Your task to perform on an android device: Go to internet settings Image 0: 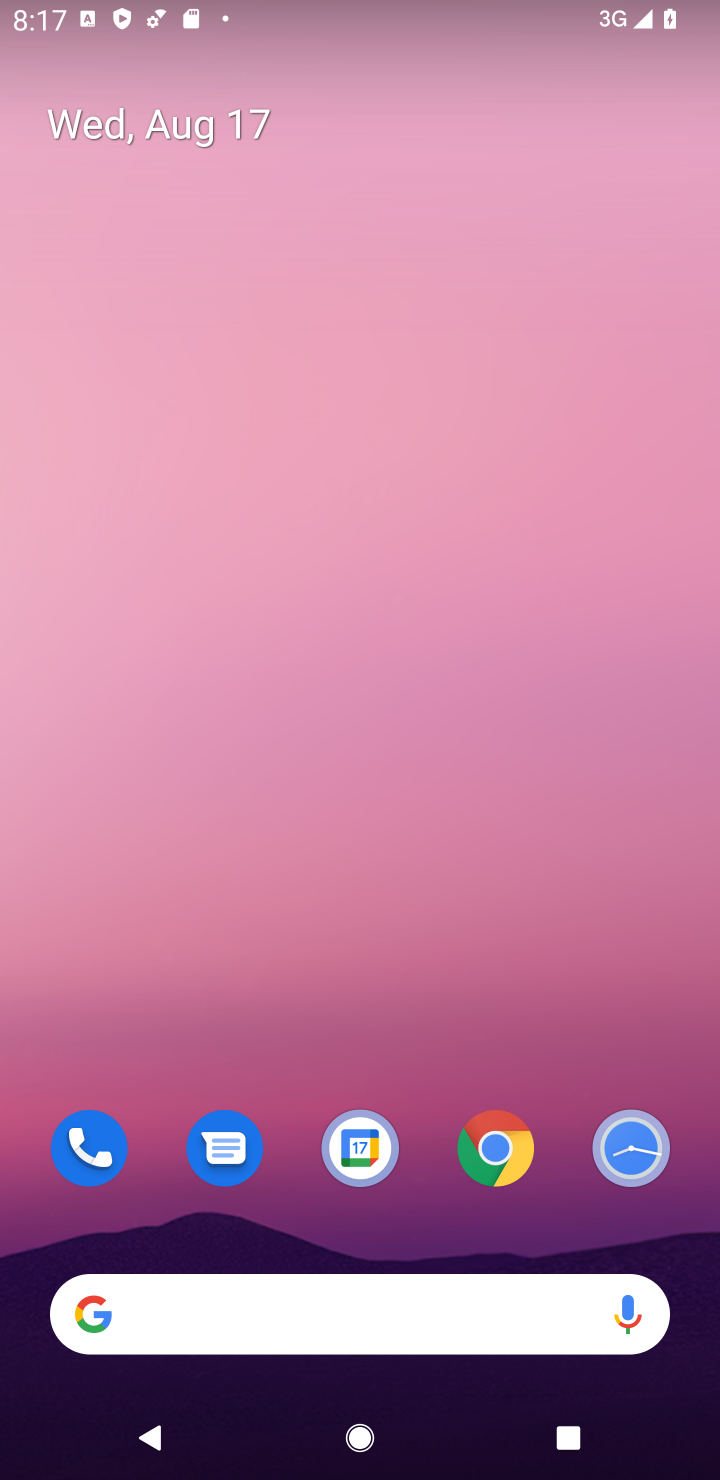
Step 0: drag from (558, 852) to (531, 94)
Your task to perform on an android device: Go to internet settings Image 1: 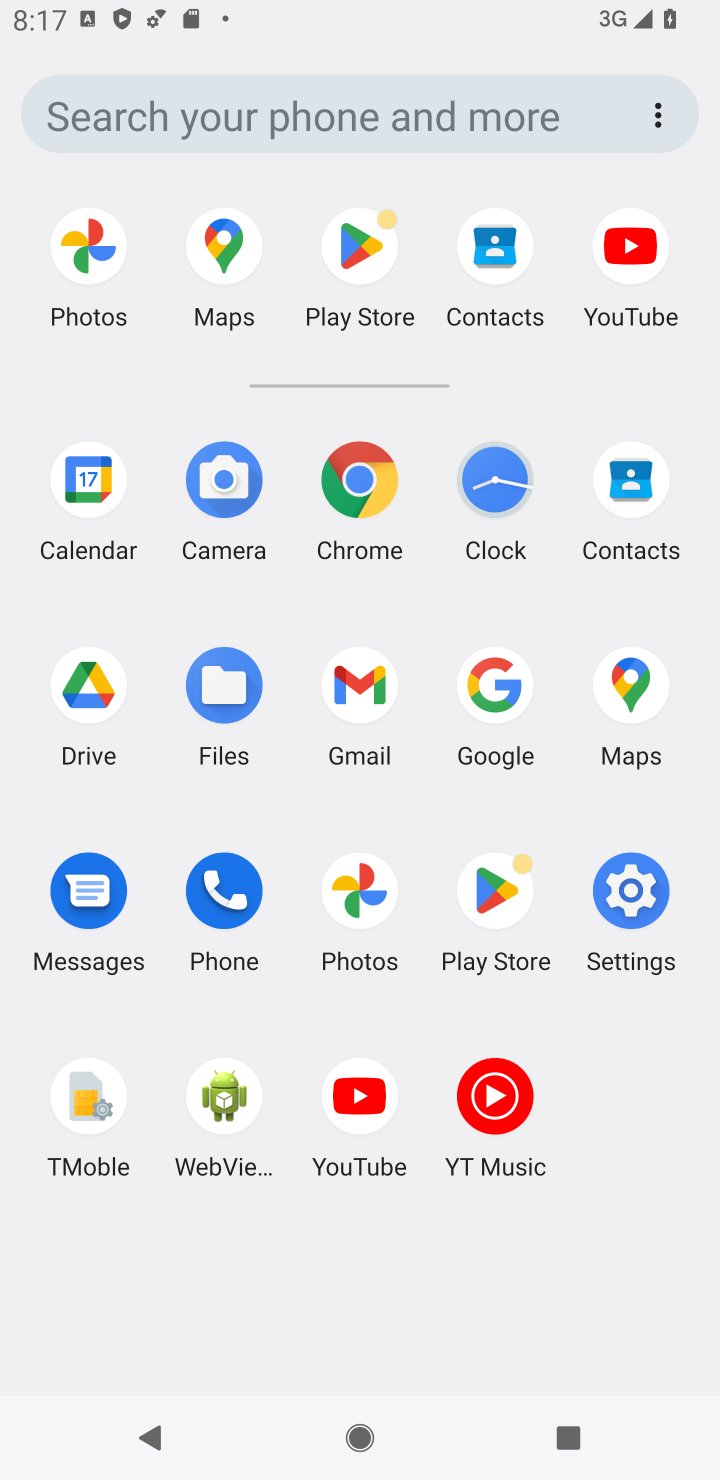
Step 1: click (633, 893)
Your task to perform on an android device: Go to internet settings Image 2: 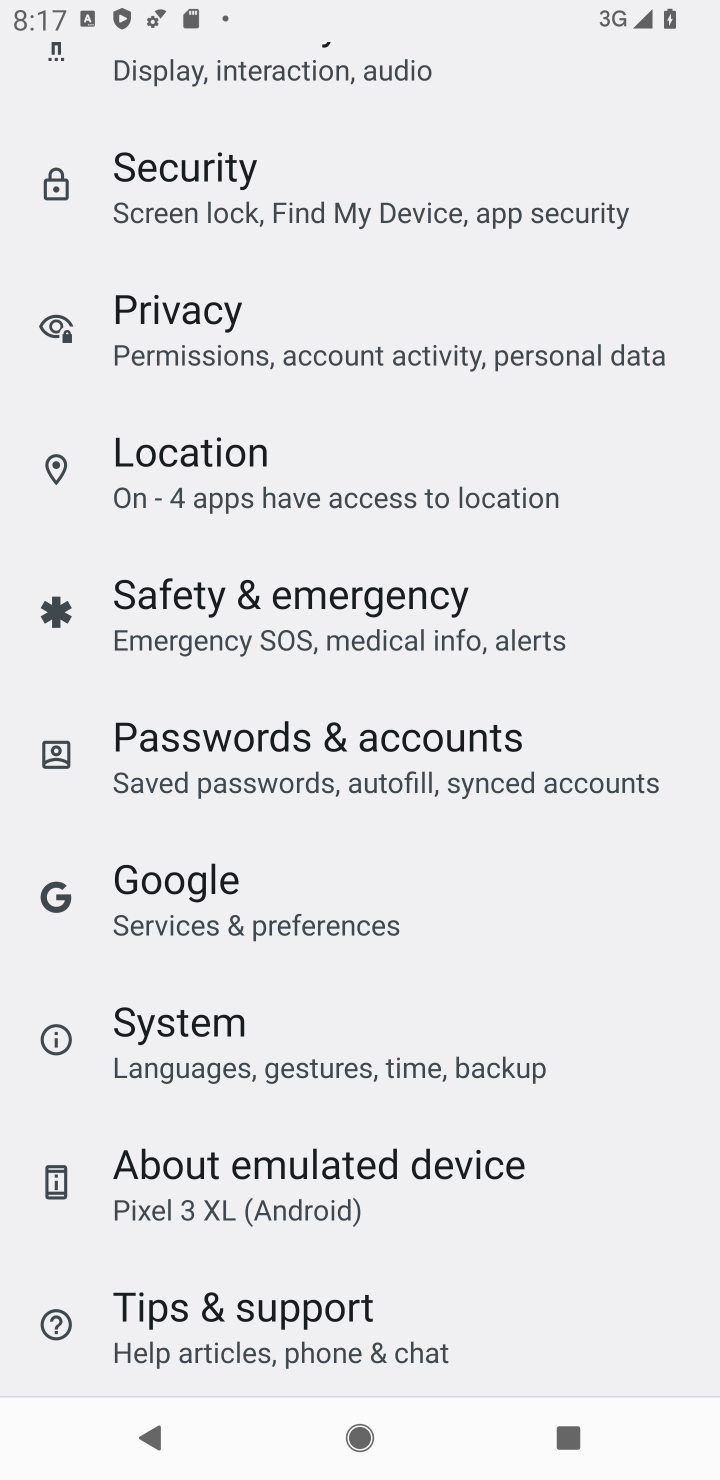
Step 2: drag from (672, 317) to (688, 915)
Your task to perform on an android device: Go to internet settings Image 3: 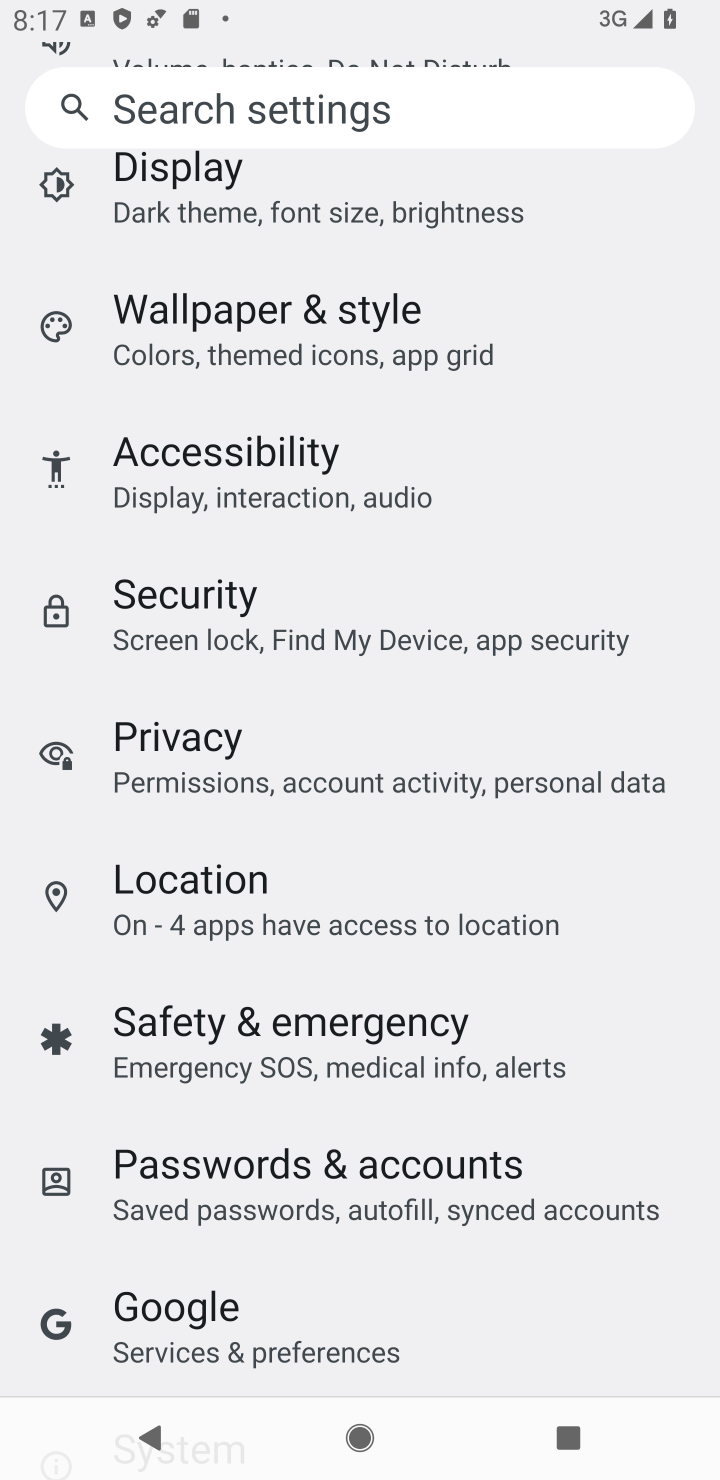
Step 3: drag from (646, 267) to (656, 889)
Your task to perform on an android device: Go to internet settings Image 4: 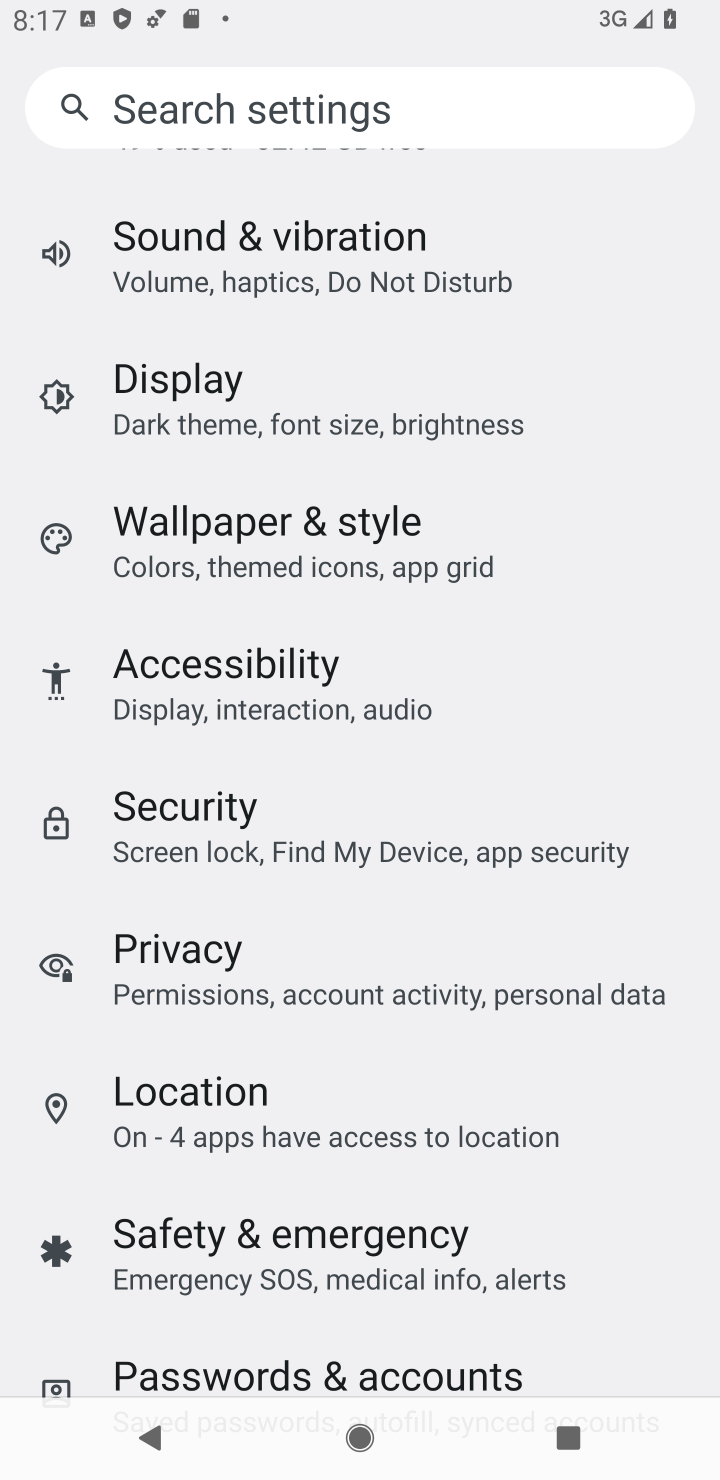
Step 4: drag from (626, 393) to (629, 1053)
Your task to perform on an android device: Go to internet settings Image 5: 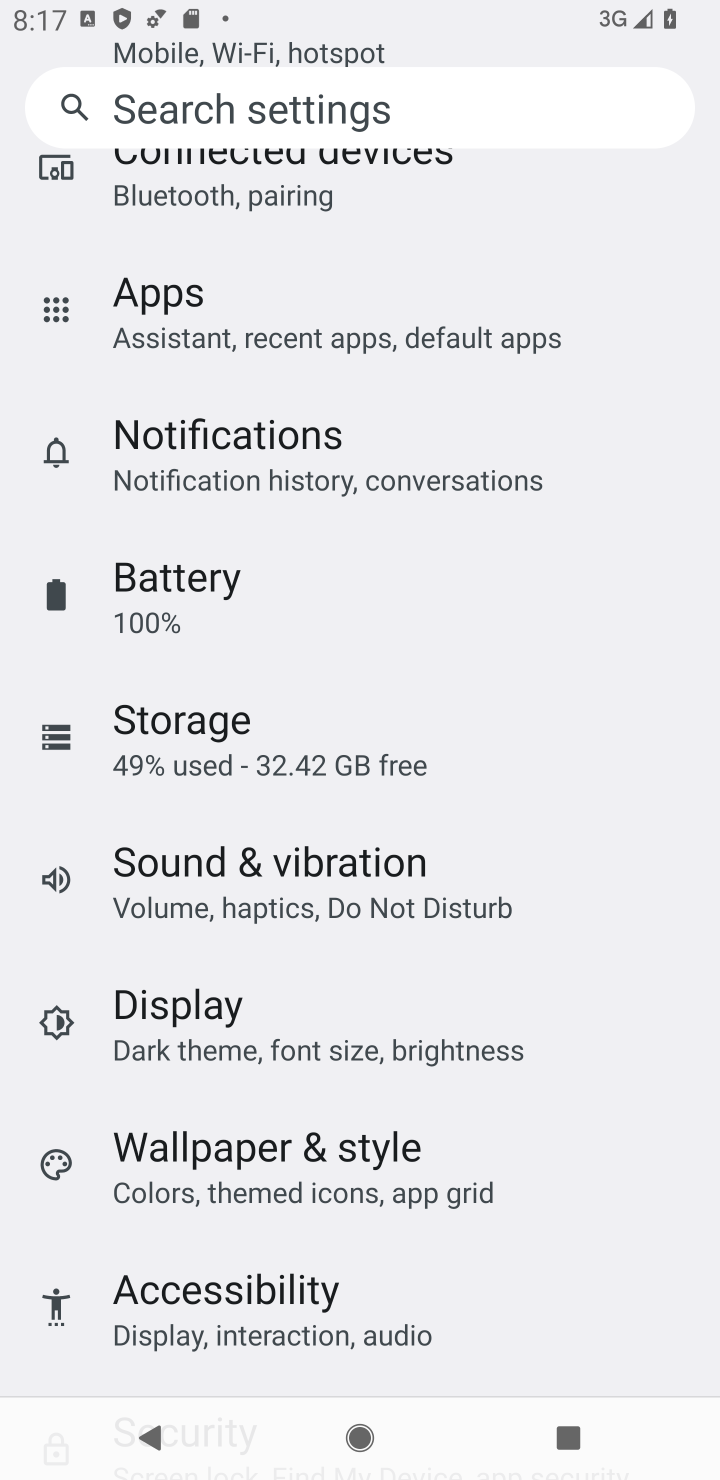
Step 5: drag from (636, 316) to (637, 986)
Your task to perform on an android device: Go to internet settings Image 6: 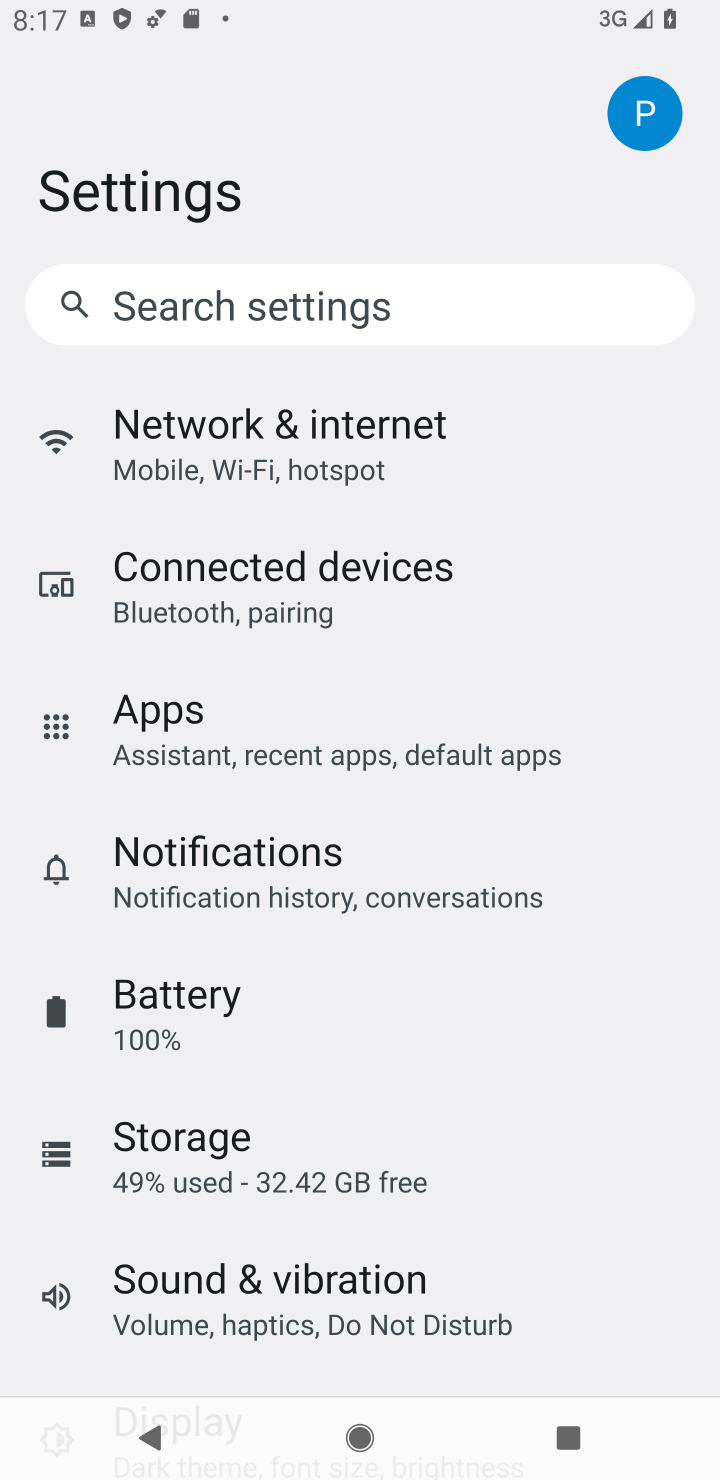
Step 6: click (215, 420)
Your task to perform on an android device: Go to internet settings Image 7: 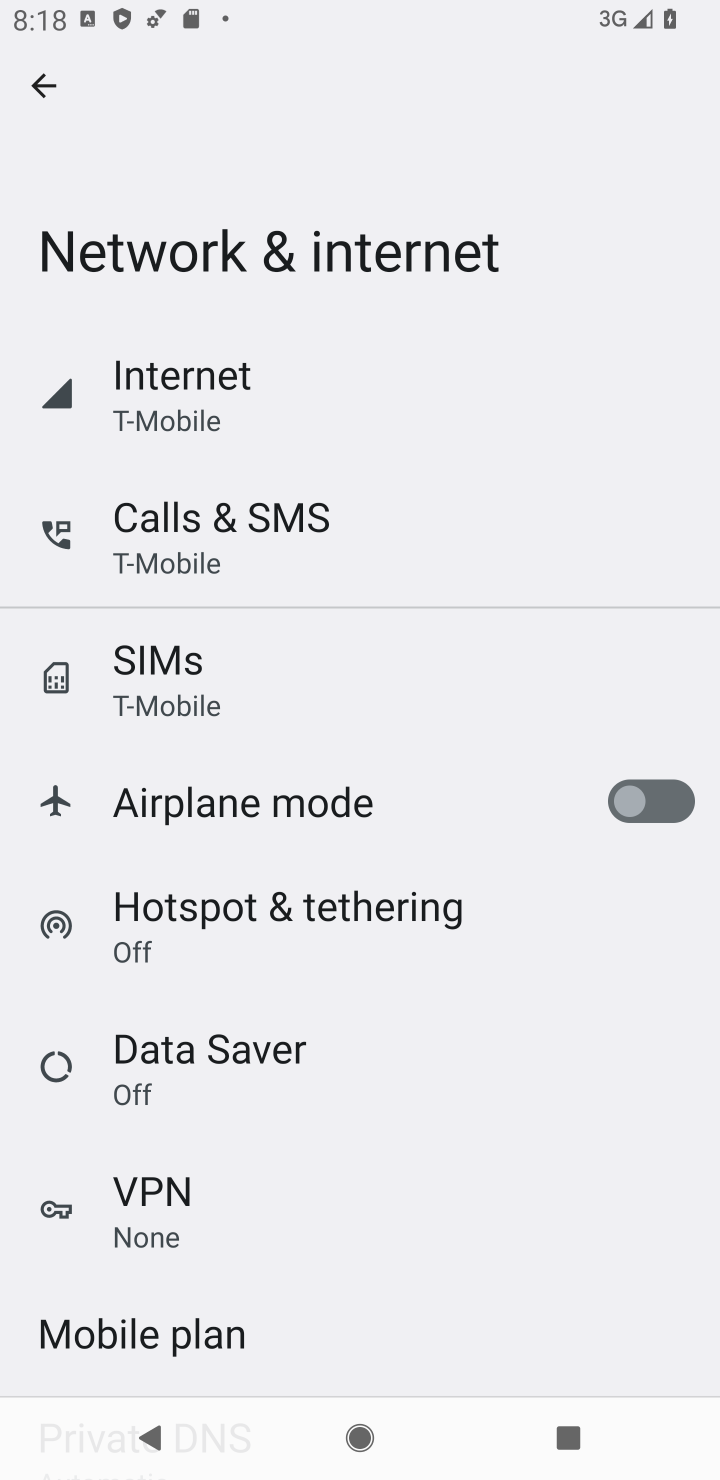
Step 7: click (180, 387)
Your task to perform on an android device: Go to internet settings Image 8: 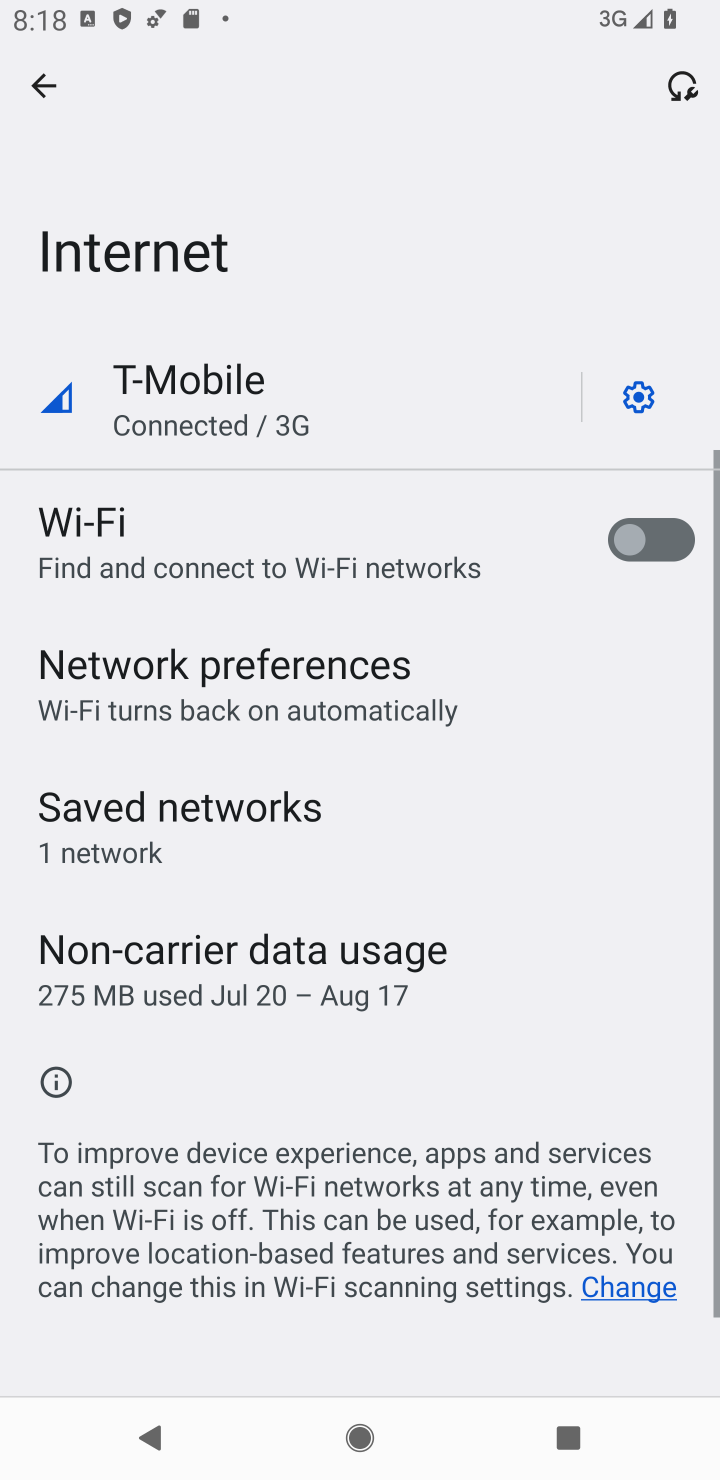
Step 8: click (638, 398)
Your task to perform on an android device: Go to internet settings Image 9: 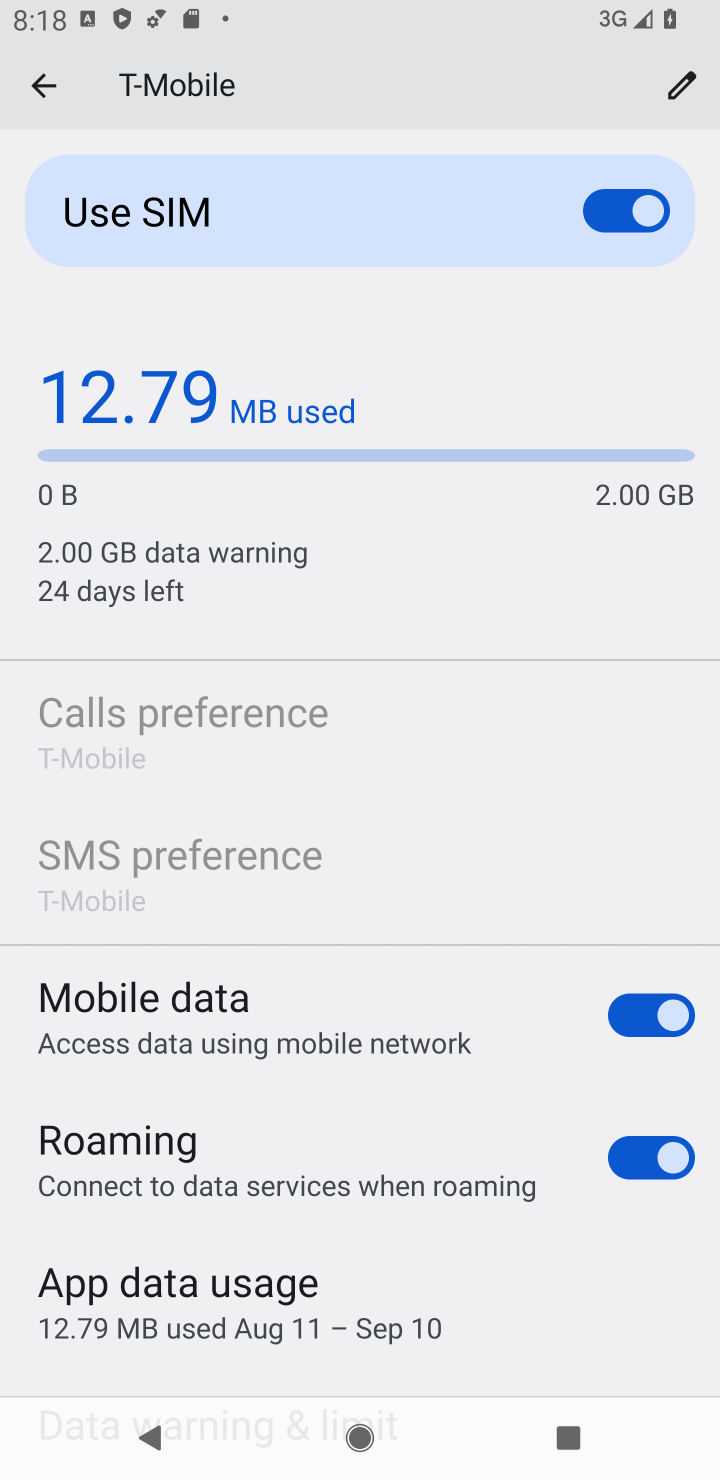
Step 9: task complete